Your task to perform on an android device: Look up the book "The Girl on the Train". Image 0: 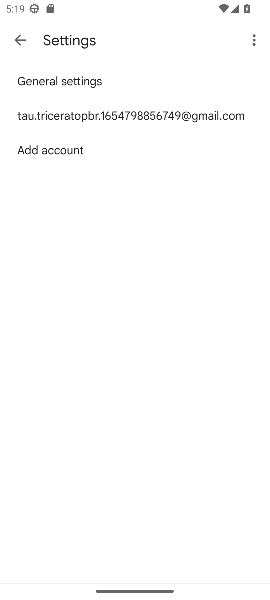
Step 0: press home button
Your task to perform on an android device: Look up the book "The Girl on the Train". Image 1: 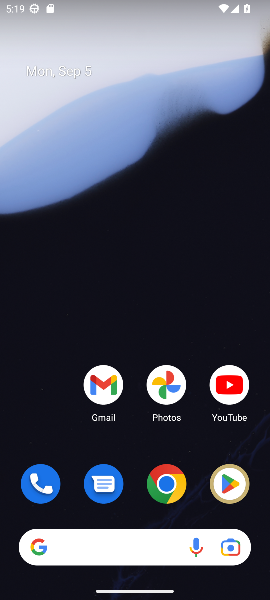
Step 1: click (164, 485)
Your task to perform on an android device: Look up the book "The Girl on the Train". Image 2: 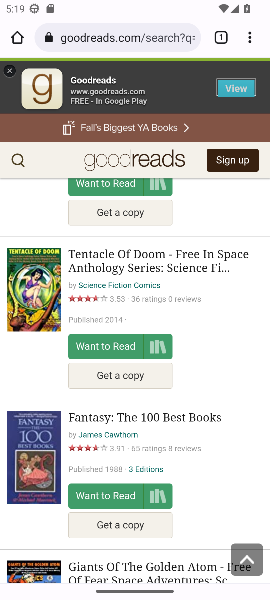
Step 2: click (150, 40)
Your task to perform on an android device: Look up the book "The Girl on the Train". Image 3: 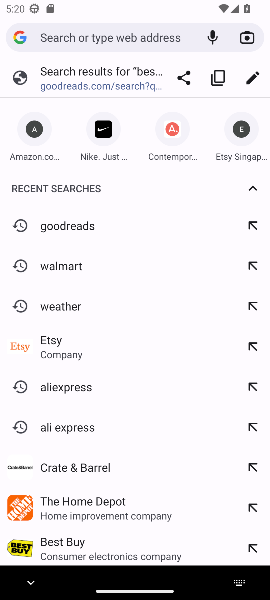
Step 3: type "The Girl on the Train book"
Your task to perform on an android device: Look up the book "The Girl on the Train". Image 4: 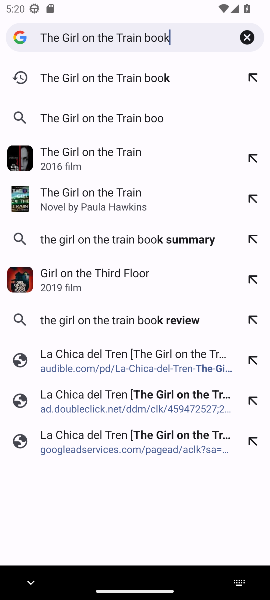
Step 4: press enter
Your task to perform on an android device: Look up the book "The Girl on the Train". Image 5: 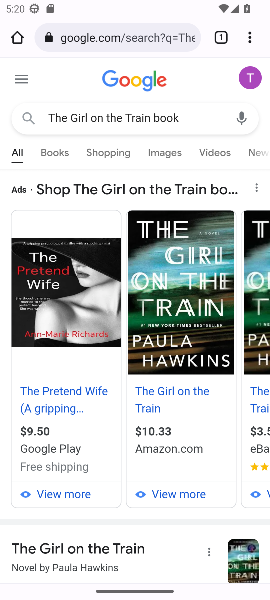
Step 5: task complete